Your task to perform on an android device: visit the assistant section in the google photos Image 0: 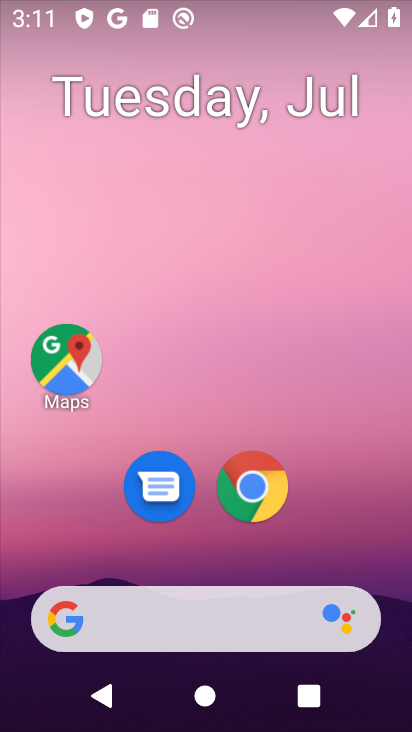
Step 0: drag from (204, 560) to (292, 16)
Your task to perform on an android device: visit the assistant section in the google photos Image 1: 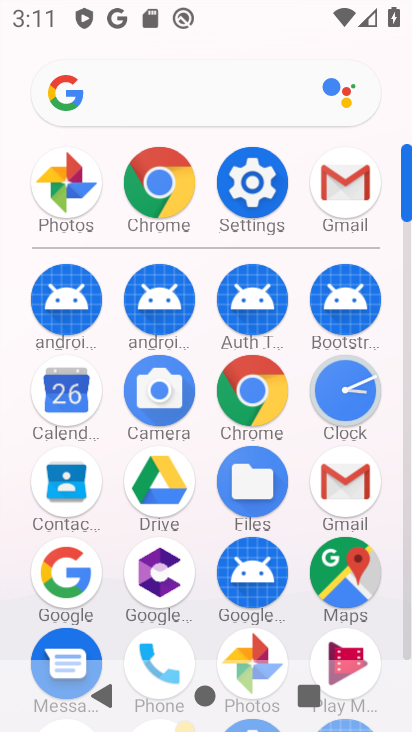
Step 1: click (257, 638)
Your task to perform on an android device: visit the assistant section in the google photos Image 2: 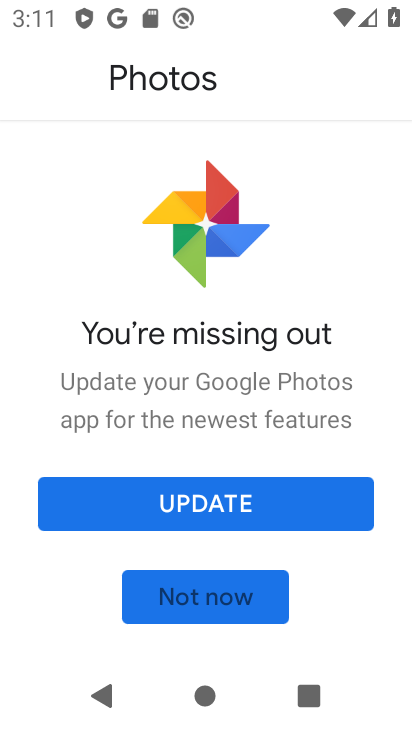
Step 2: click (220, 605)
Your task to perform on an android device: visit the assistant section in the google photos Image 3: 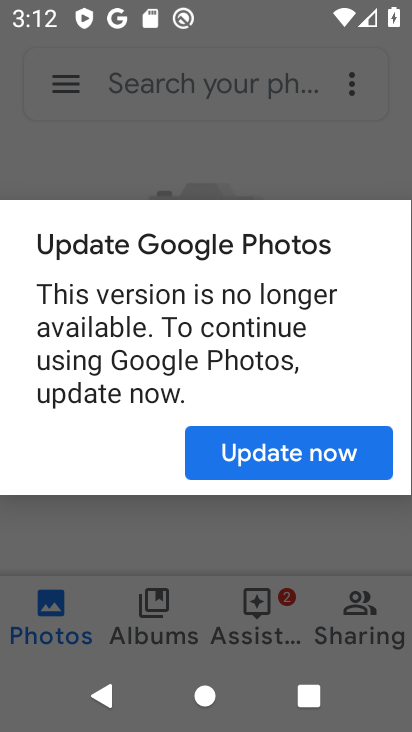
Step 3: click (265, 443)
Your task to perform on an android device: visit the assistant section in the google photos Image 4: 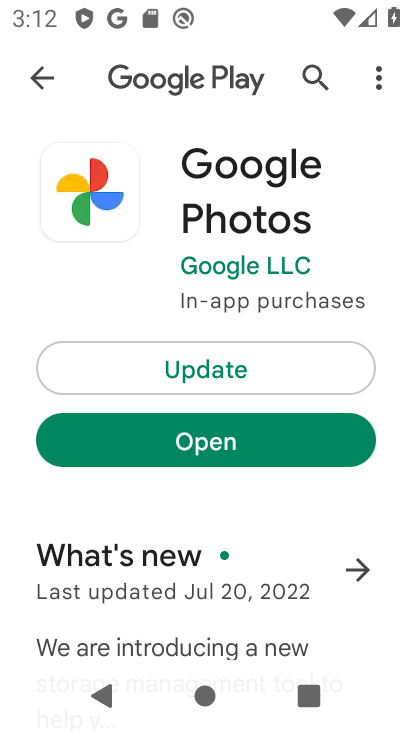
Step 4: click (40, 70)
Your task to perform on an android device: visit the assistant section in the google photos Image 5: 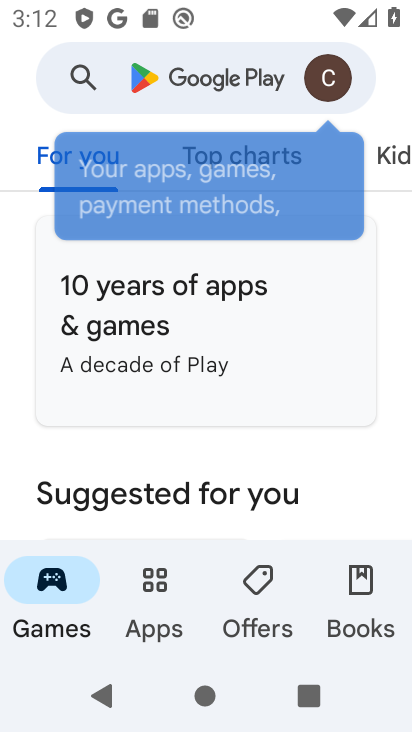
Step 5: press back button
Your task to perform on an android device: visit the assistant section in the google photos Image 6: 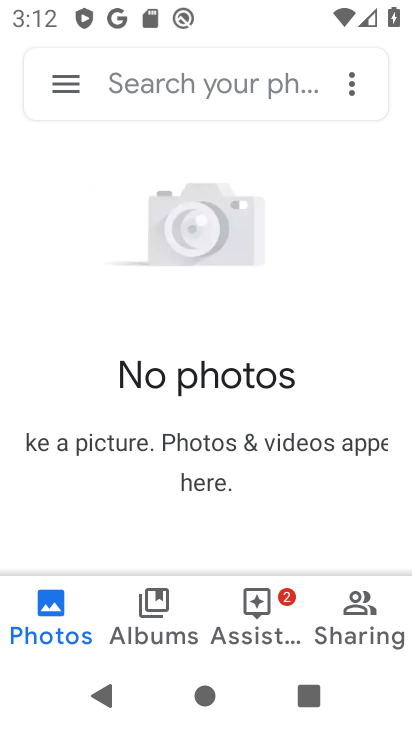
Step 6: click (247, 620)
Your task to perform on an android device: visit the assistant section in the google photos Image 7: 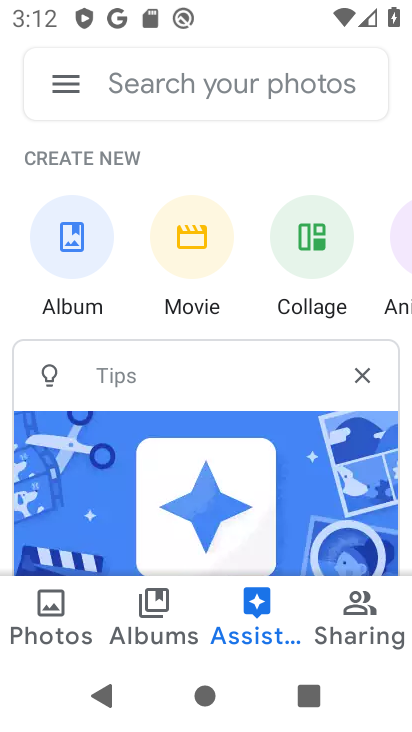
Step 7: task complete